Your task to perform on an android device: Clear the shopping cart on newegg.com. Search for "razer kraken" on newegg.com, select the first entry, and add it to the cart. Image 0: 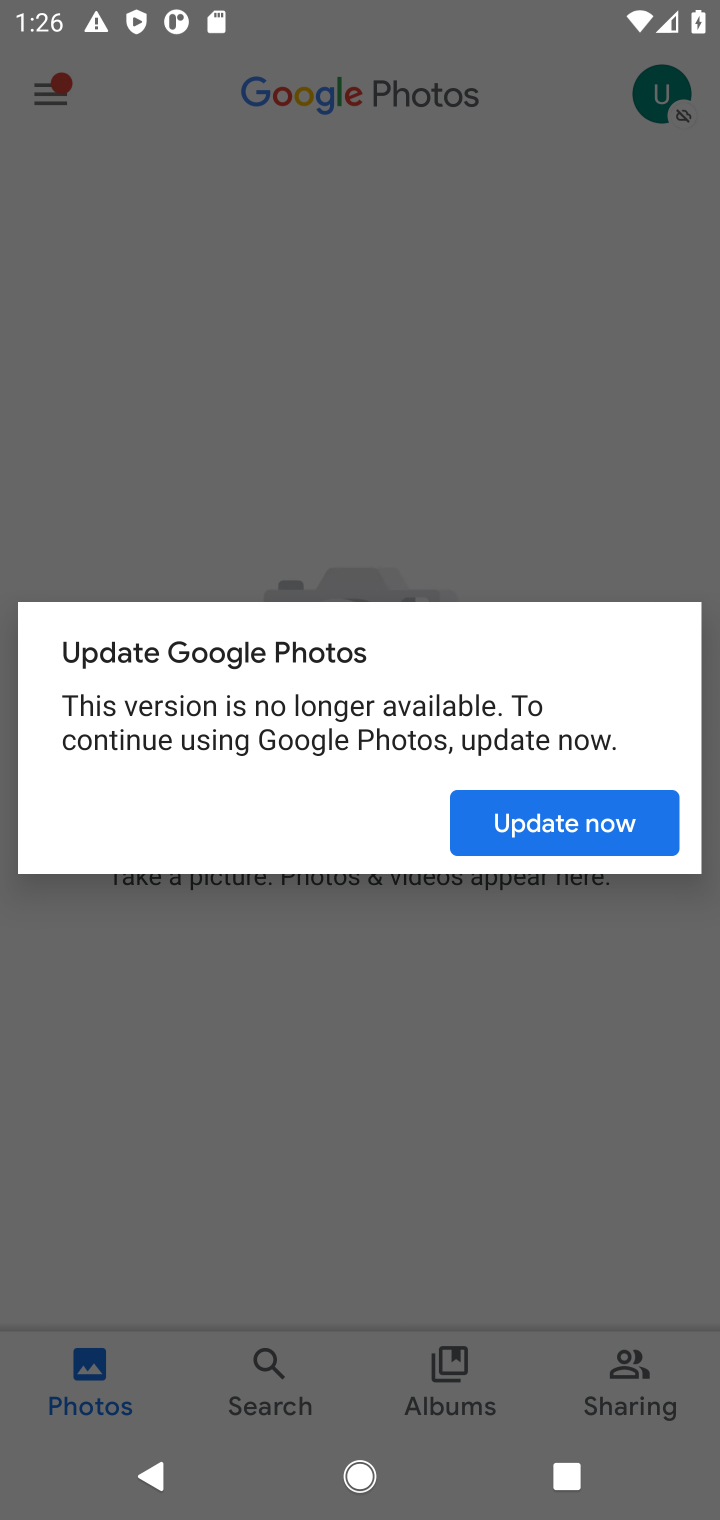
Step 0: task complete